Your task to perform on an android device: empty trash in the gmail app Image 0: 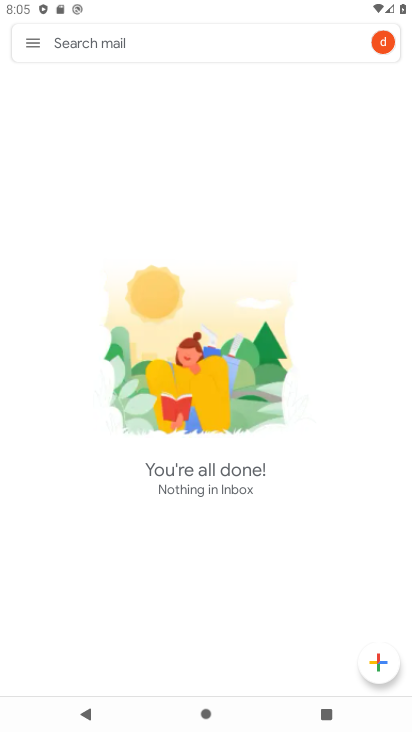
Step 0: press home button
Your task to perform on an android device: empty trash in the gmail app Image 1: 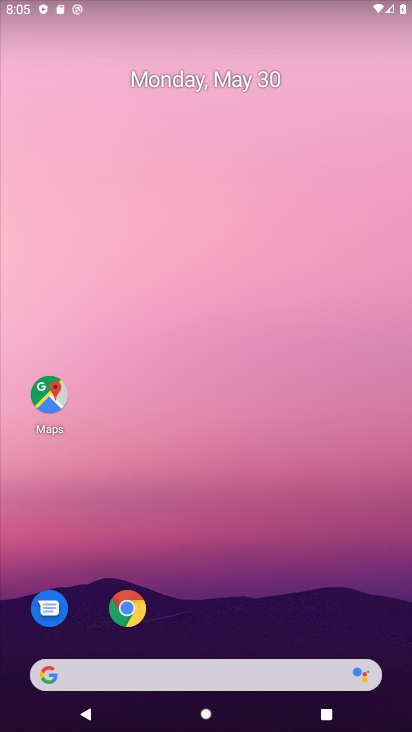
Step 1: drag from (399, 659) to (388, 137)
Your task to perform on an android device: empty trash in the gmail app Image 2: 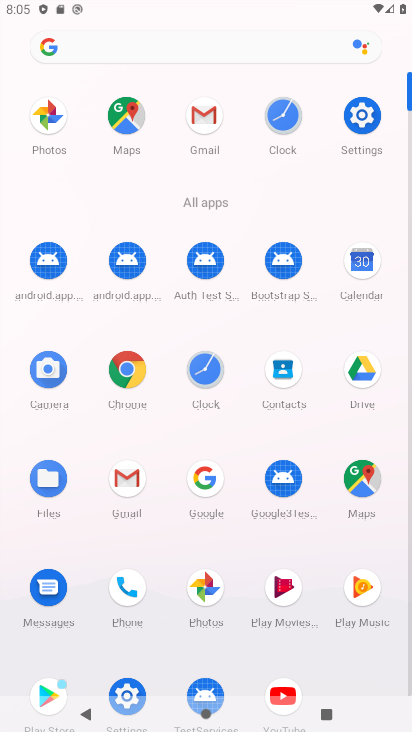
Step 2: click (207, 125)
Your task to perform on an android device: empty trash in the gmail app Image 3: 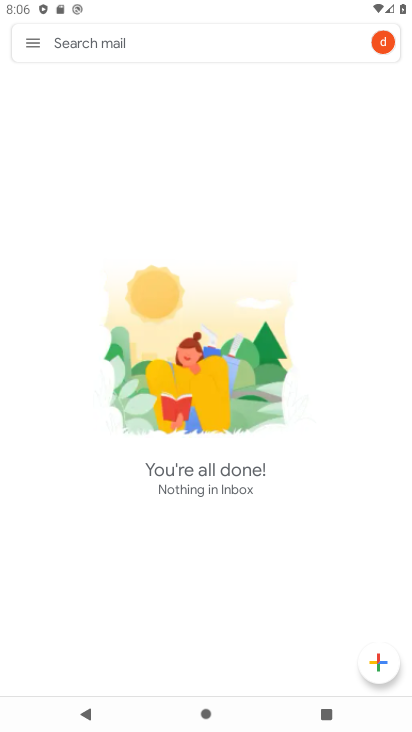
Step 3: click (36, 49)
Your task to perform on an android device: empty trash in the gmail app Image 4: 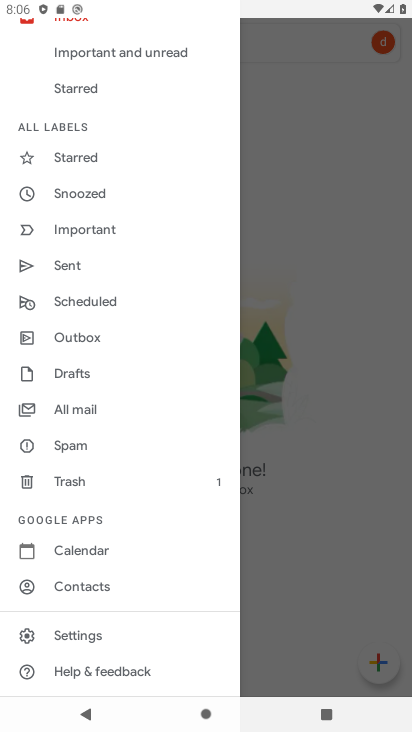
Step 4: click (60, 482)
Your task to perform on an android device: empty trash in the gmail app Image 5: 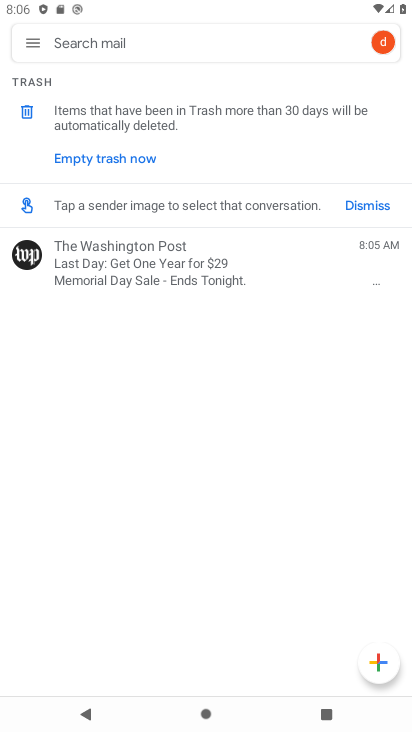
Step 5: click (68, 152)
Your task to perform on an android device: empty trash in the gmail app Image 6: 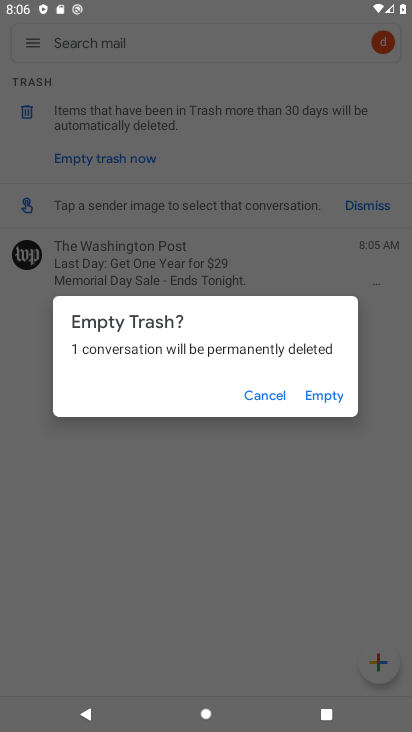
Step 6: click (331, 393)
Your task to perform on an android device: empty trash in the gmail app Image 7: 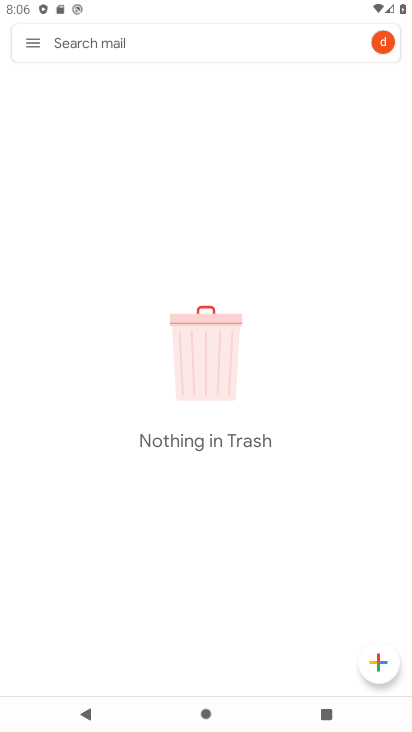
Step 7: task complete